Your task to perform on an android device: set the timer Image 0: 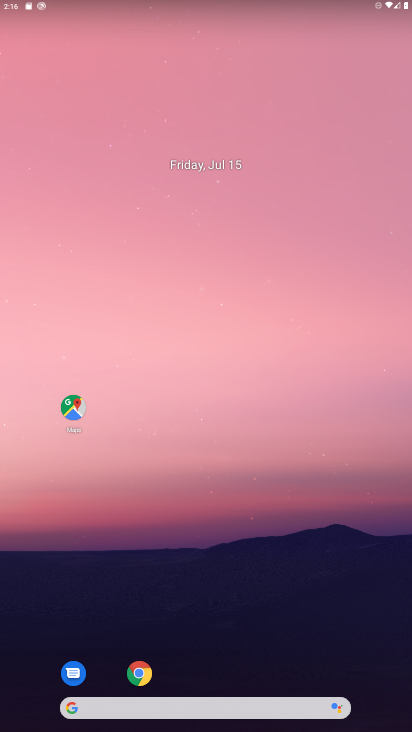
Step 0: drag from (174, 696) to (175, 349)
Your task to perform on an android device: set the timer Image 1: 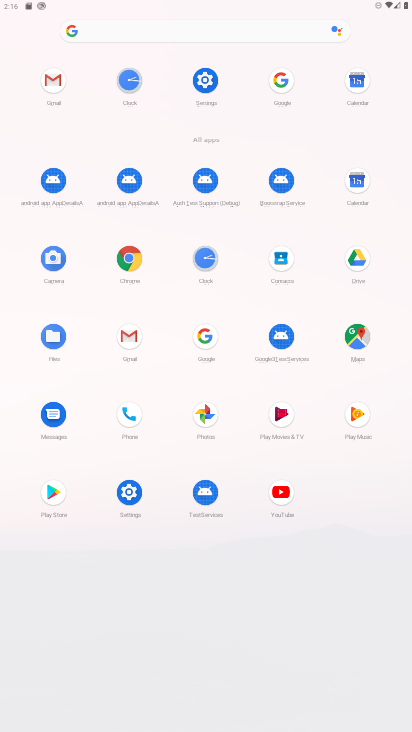
Step 1: click (204, 265)
Your task to perform on an android device: set the timer Image 2: 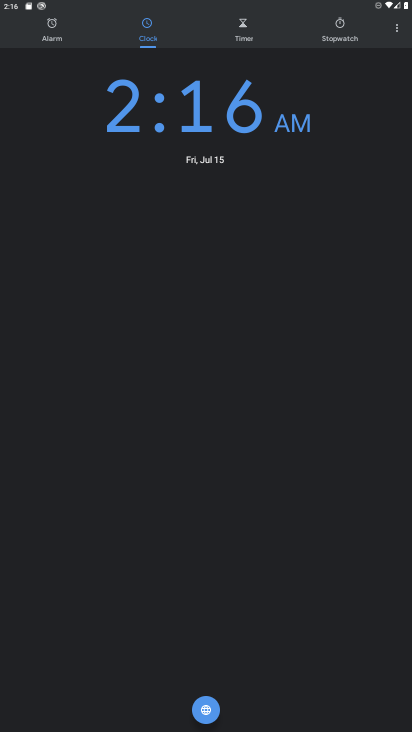
Step 2: click (240, 41)
Your task to perform on an android device: set the timer Image 3: 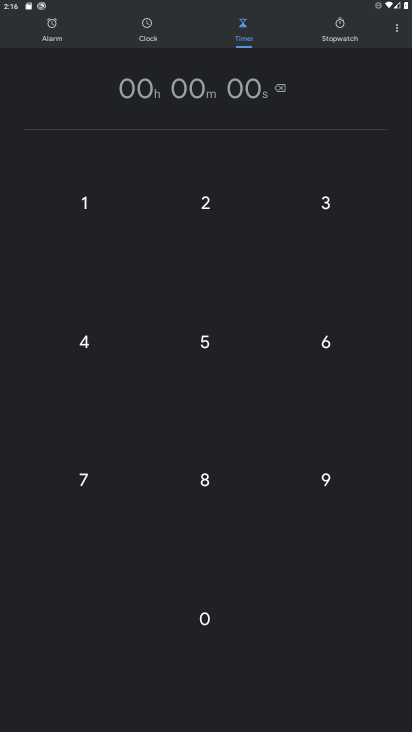
Step 3: click (209, 625)
Your task to perform on an android device: set the timer Image 4: 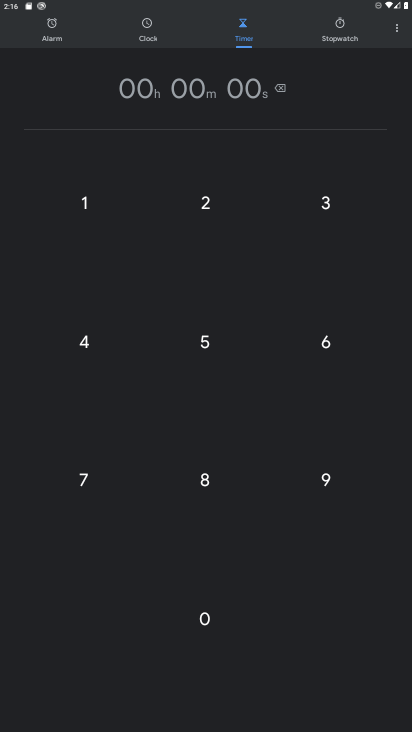
Step 4: click (207, 484)
Your task to perform on an android device: set the timer Image 5: 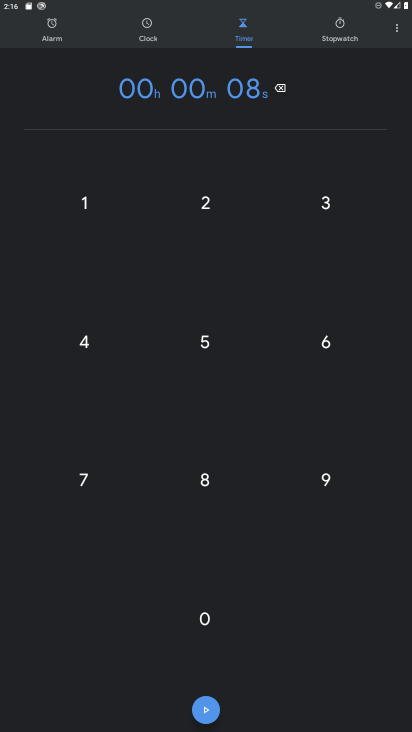
Step 5: click (208, 621)
Your task to perform on an android device: set the timer Image 6: 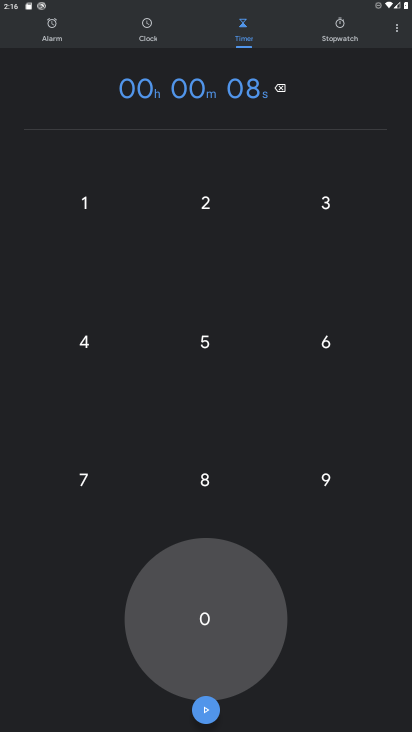
Step 6: click (208, 621)
Your task to perform on an android device: set the timer Image 7: 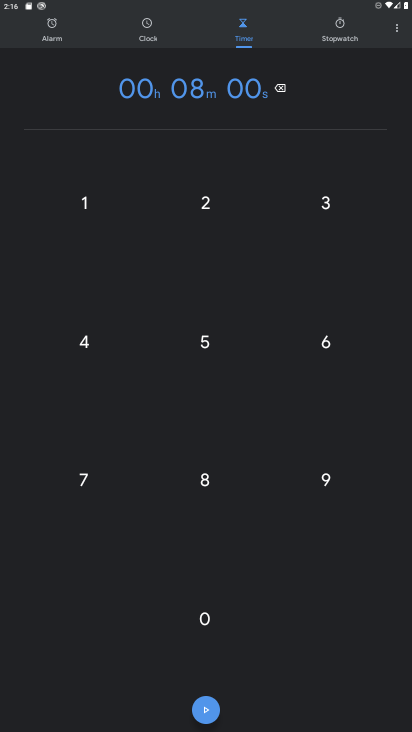
Step 7: click (197, 719)
Your task to perform on an android device: set the timer Image 8: 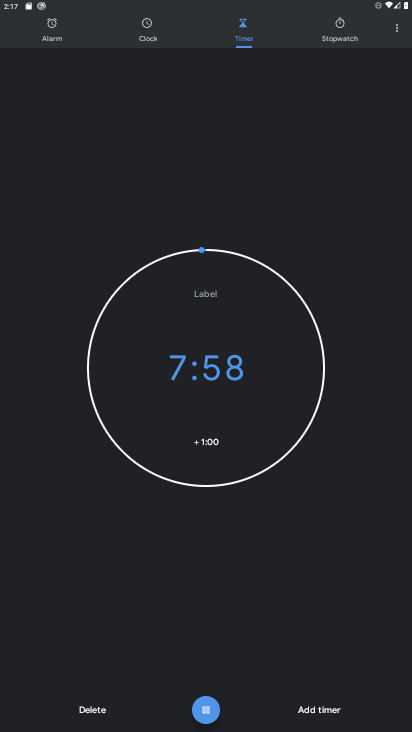
Step 8: task complete